Your task to perform on an android device: open the mobile data screen to see how much data has been used Image 0: 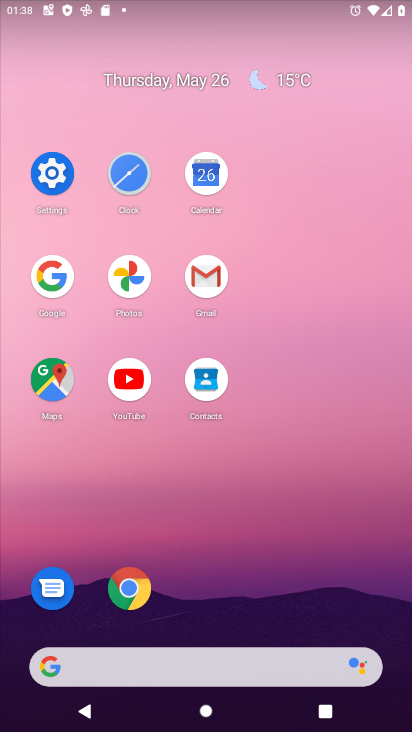
Step 0: click (47, 191)
Your task to perform on an android device: open the mobile data screen to see how much data has been used Image 1: 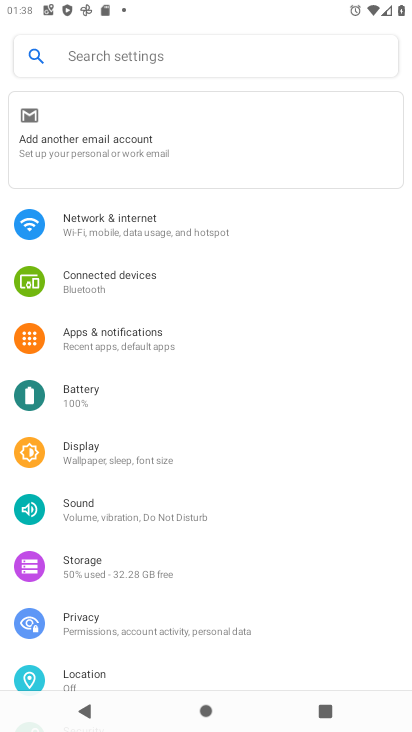
Step 1: click (147, 242)
Your task to perform on an android device: open the mobile data screen to see how much data has been used Image 2: 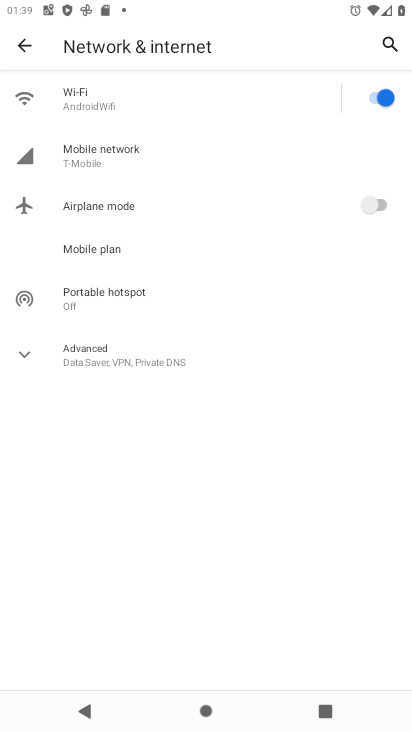
Step 2: click (133, 168)
Your task to perform on an android device: open the mobile data screen to see how much data has been used Image 3: 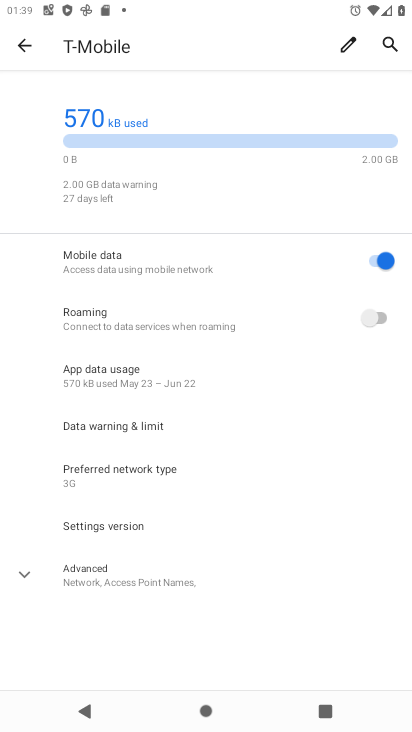
Step 3: task complete